Your task to perform on an android device: see tabs open on other devices in the chrome app Image 0: 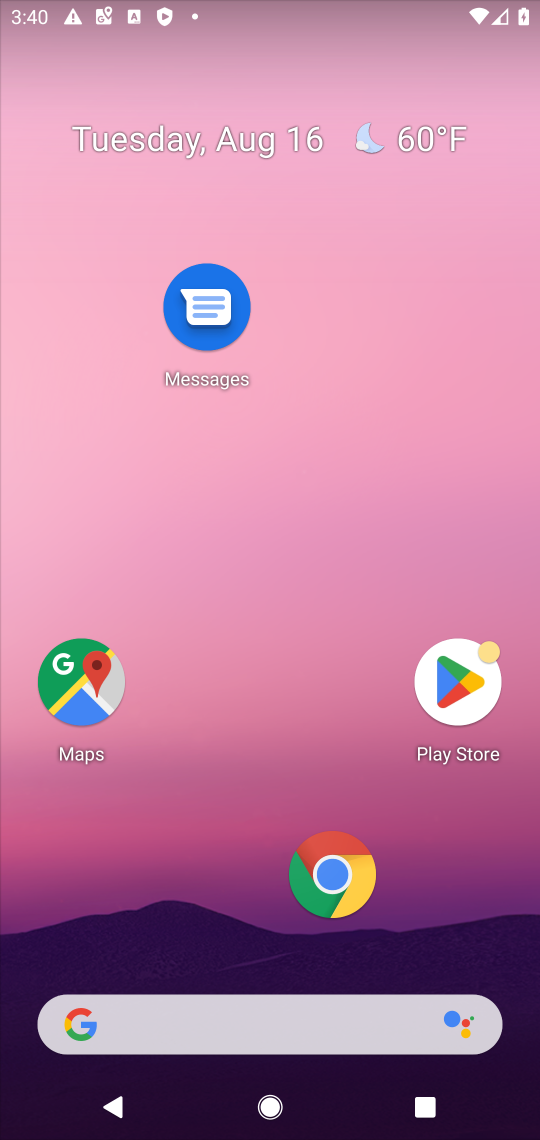
Step 0: click (340, 872)
Your task to perform on an android device: see tabs open on other devices in the chrome app Image 1: 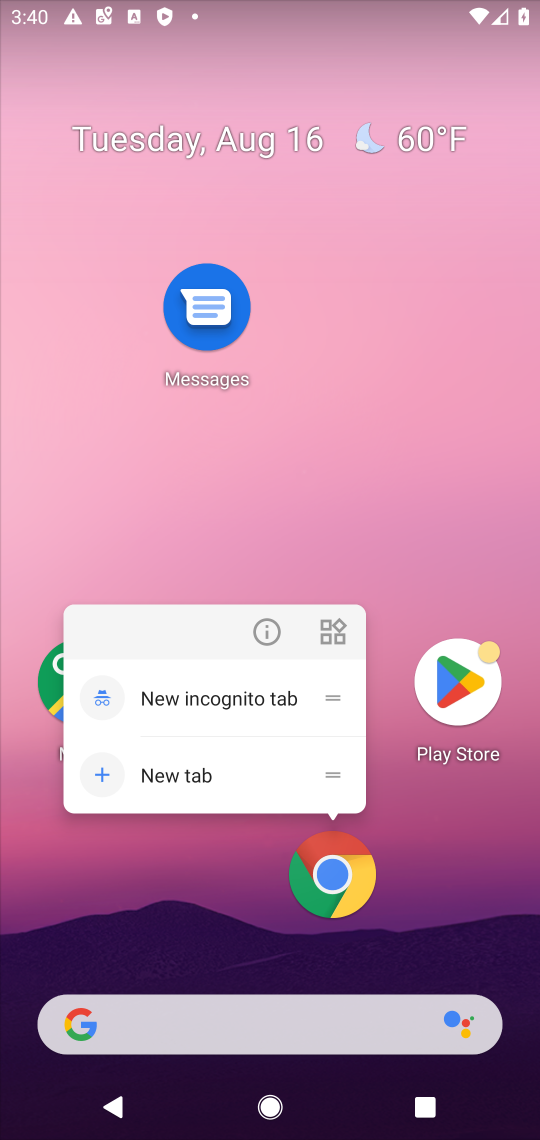
Step 1: click (340, 872)
Your task to perform on an android device: see tabs open on other devices in the chrome app Image 2: 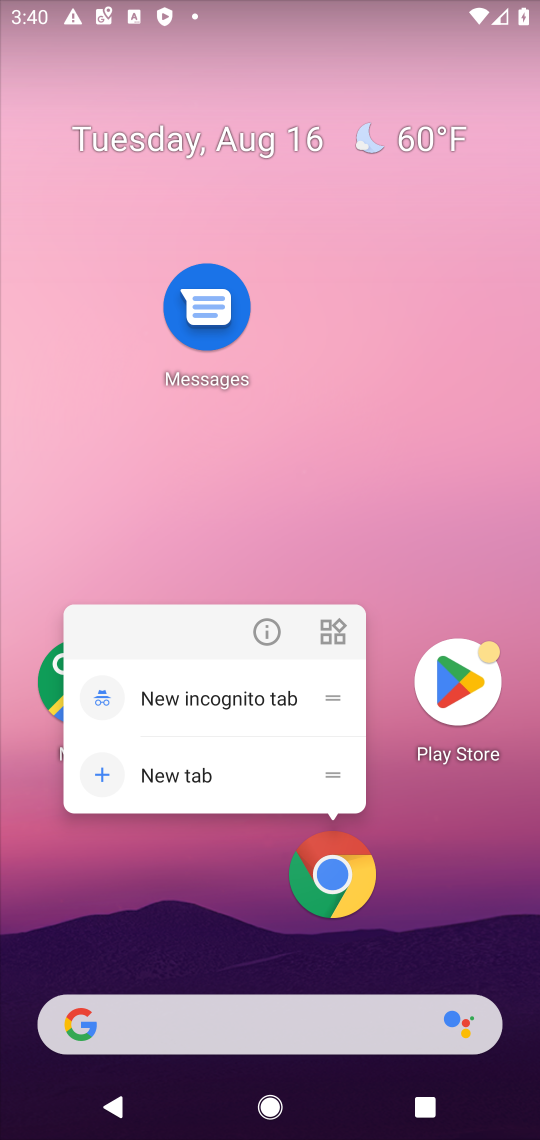
Step 2: click (327, 876)
Your task to perform on an android device: see tabs open on other devices in the chrome app Image 3: 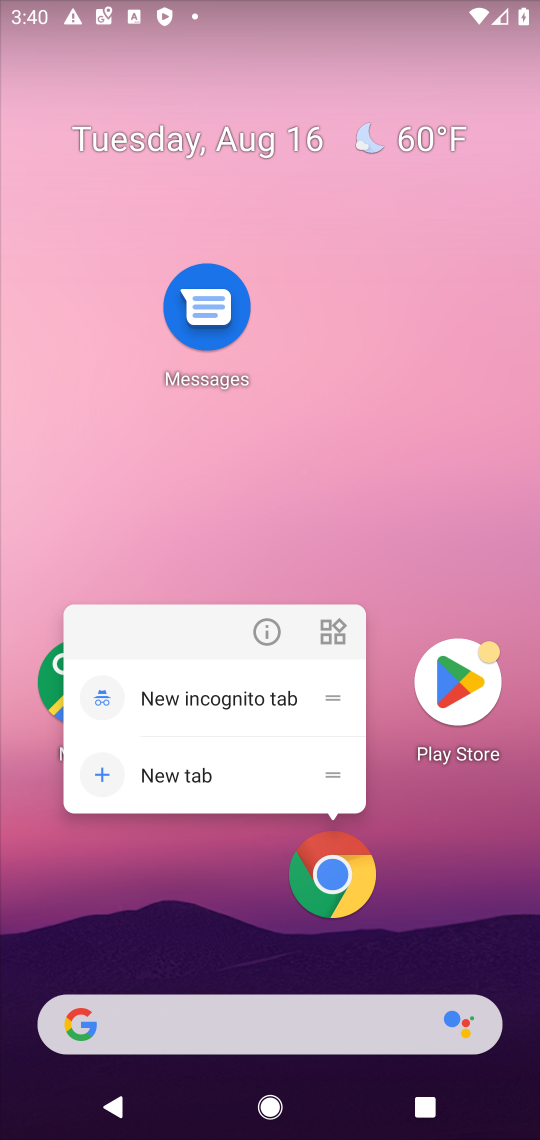
Step 3: click (327, 876)
Your task to perform on an android device: see tabs open on other devices in the chrome app Image 4: 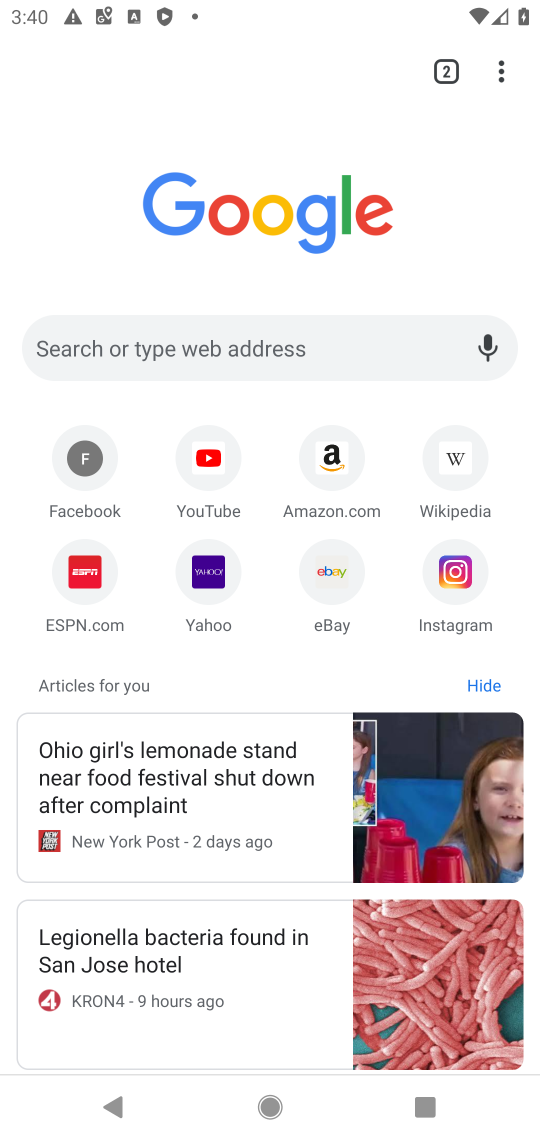
Step 4: click (441, 73)
Your task to perform on an android device: see tabs open on other devices in the chrome app Image 5: 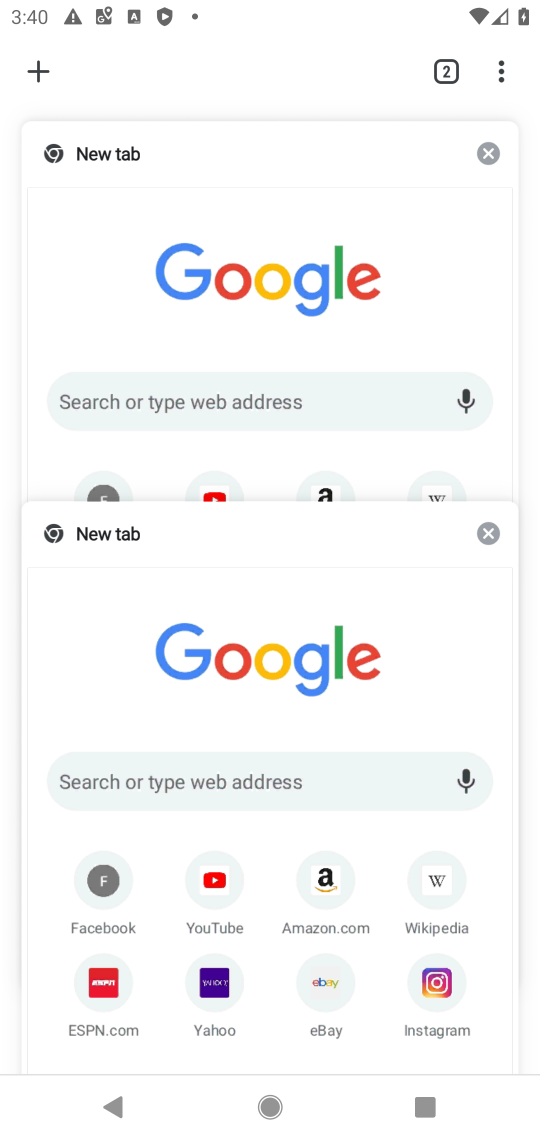
Step 5: task complete